Your task to perform on an android device: Open Youtube and go to "Your channel" Image 0: 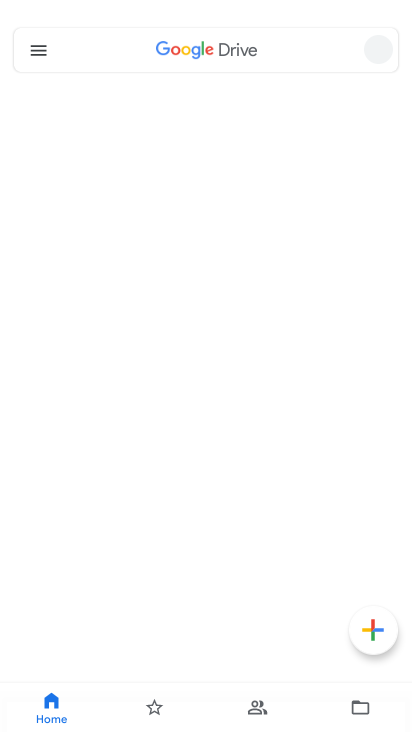
Step 0: press home button
Your task to perform on an android device: Open Youtube and go to "Your channel" Image 1: 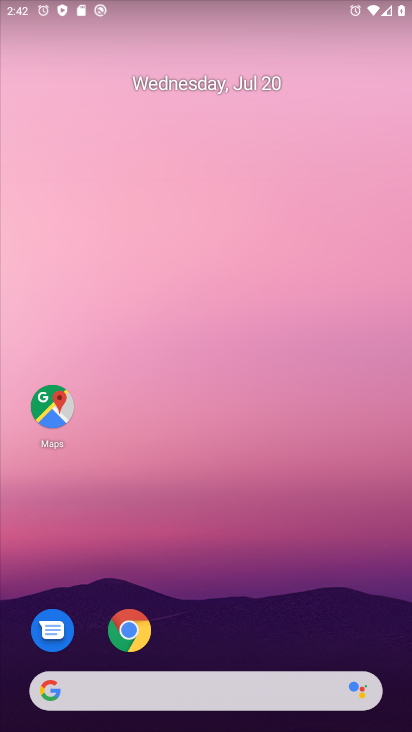
Step 1: drag from (19, 617) to (286, 128)
Your task to perform on an android device: Open Youtube and go to "Your channel" Image 2: 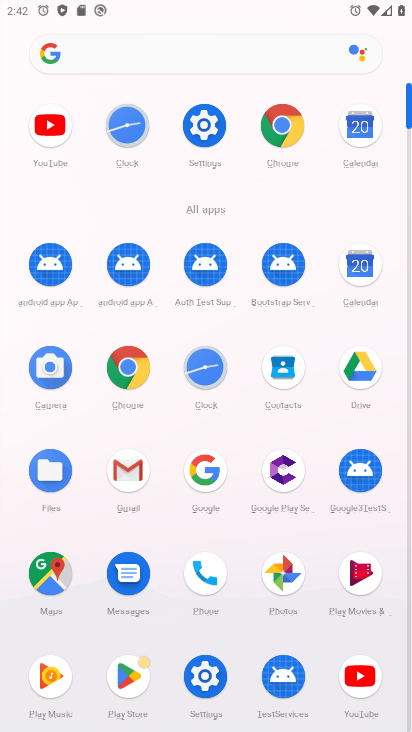
Step 2: click (357, 676)
Your task to perform on an android device: Open Youtube and go to "Your channel" Image 3: 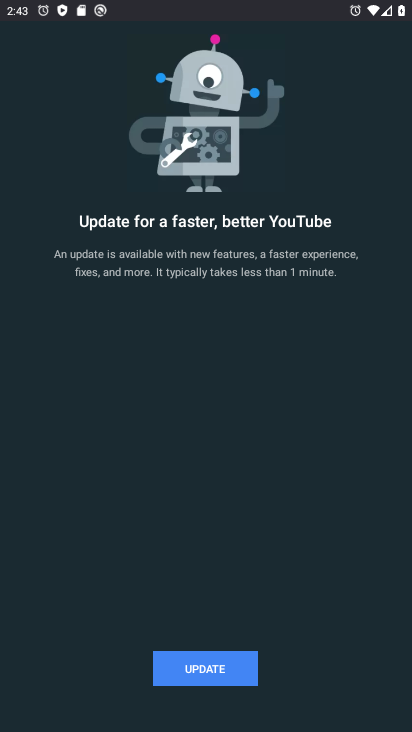
Step 3: task complete